Your task to perform on an android device: Open Chrome and go to settings Image 0: 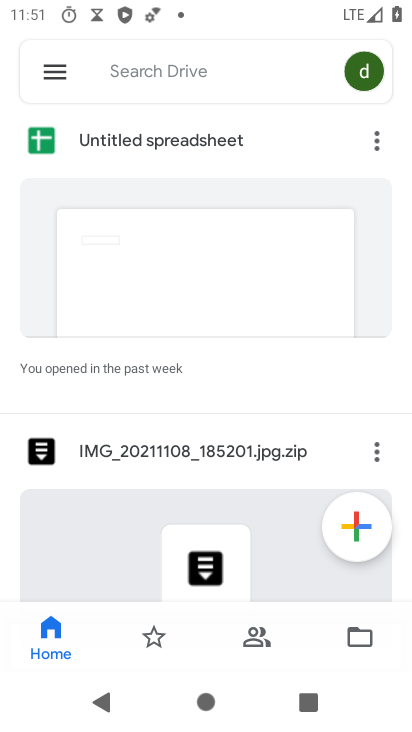
Step 0: press home button
Your task to perform on an android device: Open Chrome and go to settings Image 1: 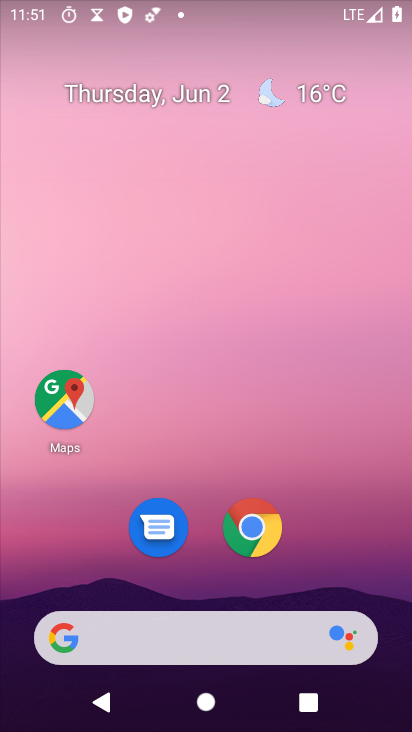
Step 1: click (251, 533)
Your task to perform on an android device: Open Chrome and go to settings Image 2: 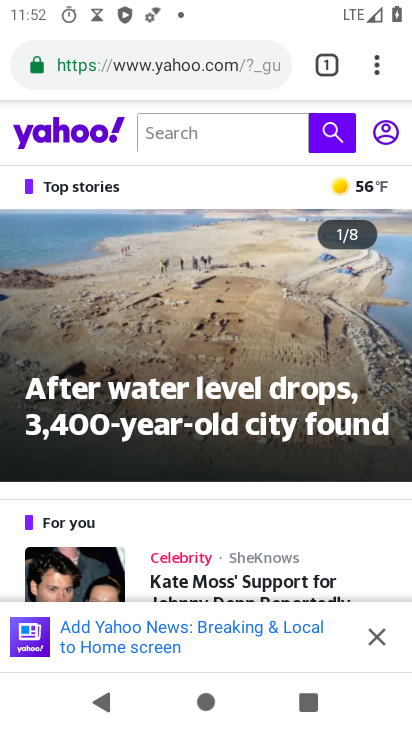
Step 2: task complete